Your task to perform on an android device: turn pop-ups off in chrome Image 0: 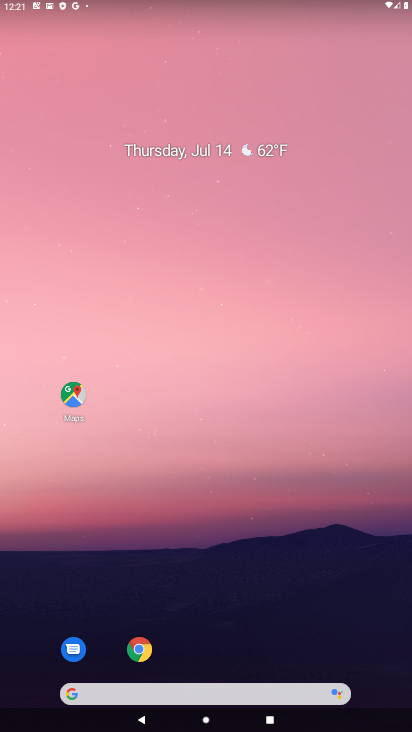
Step 0: drag from (386, 676) to (222, 68)
Your task to perform on an android device: turn pop-ups off in chrome Image 1: 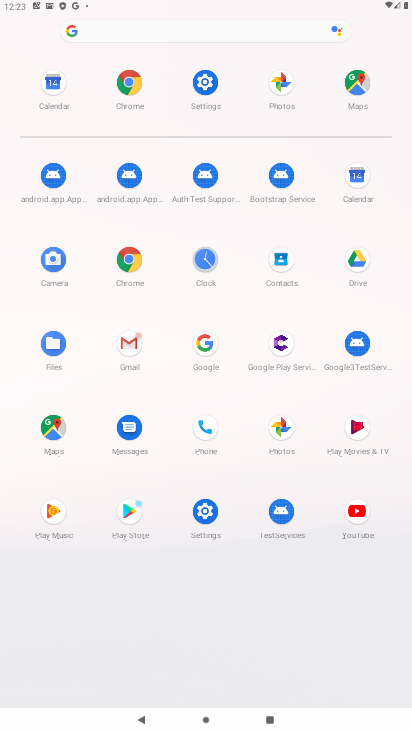
Step 1: click (122, 263)
Your task to perform on an android device: turn pop-ups off in chrome Image 2: 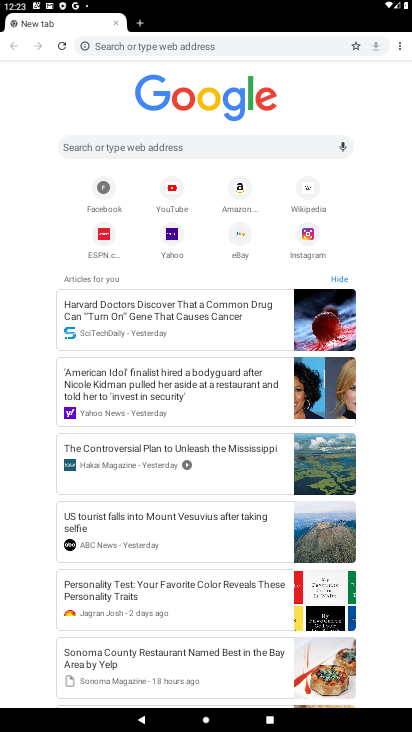
Step 2: click (401, 42)
Your task to perform on an android device: turn pop-ups off in chrome Image 3: 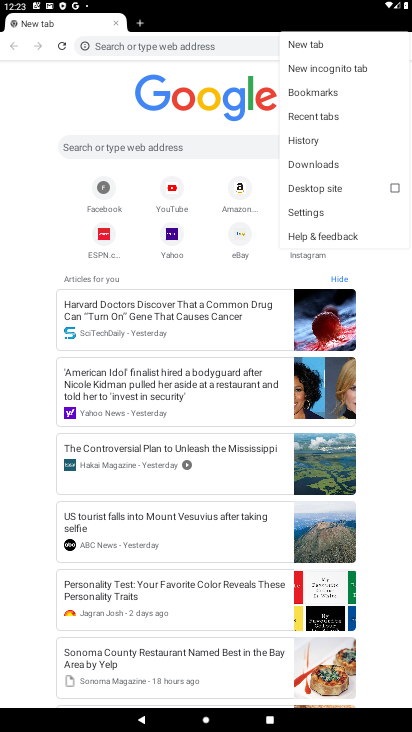
Step 3: click (320, 212)
Your task to perform on an android device: turn pop-ups off in chrome Image 4: 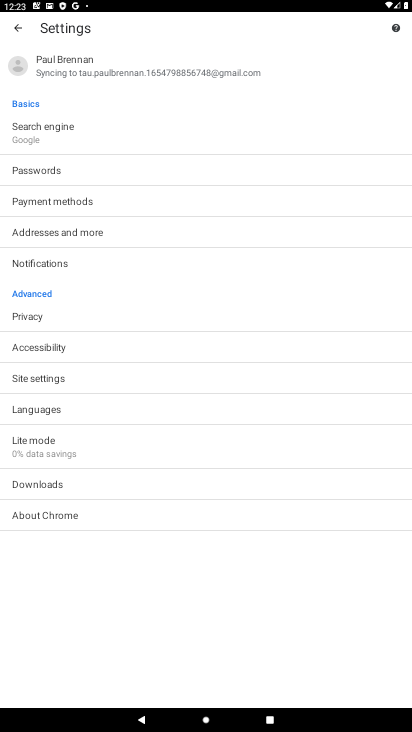
Step 4: click (57, 385)
Your task to perform on an android device: turn pop-ups off in chrome Image 5: 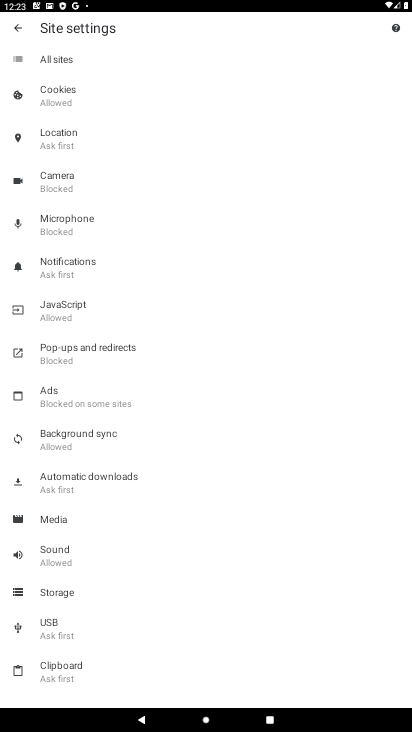
Step 5: click (71, 343)
Your task to perform on an android device: turn pop-ups off in chrome Image 6: 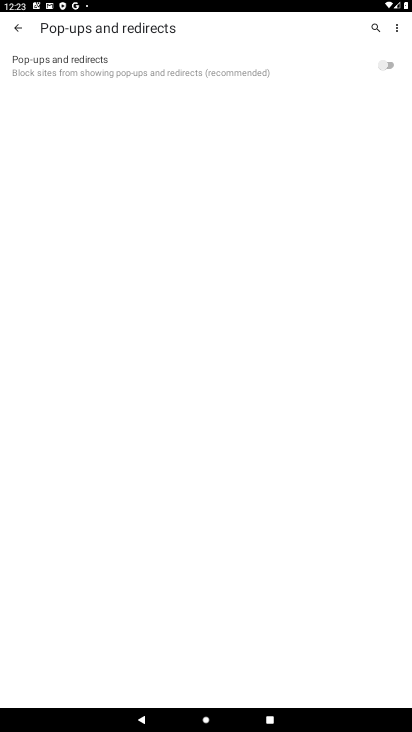
Step 6: task complete